Your task to perform on an android device: open a bookmark in the chrome app Image 0: 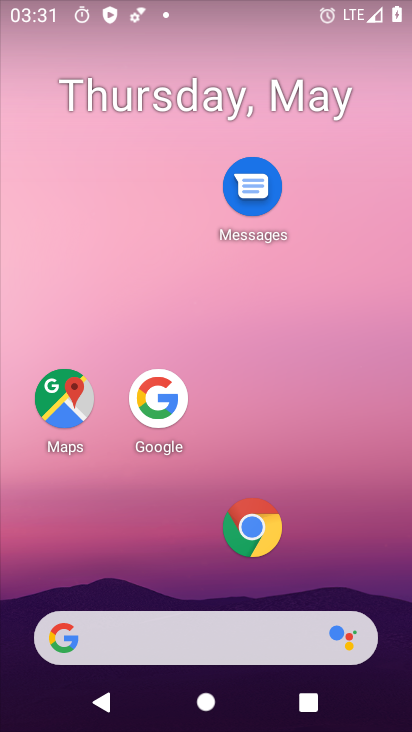
Step 0: drag from (196, 594) to (197, 181)
Your task to perform on an android device: open a bookmark in the chrome app Image 1: 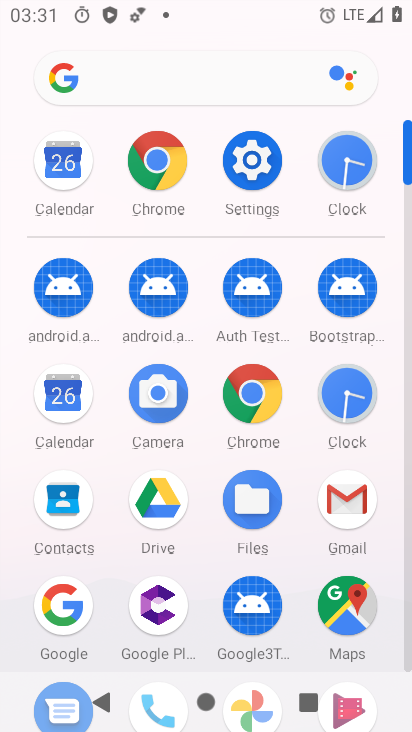
Step 1: click (256, 380)
Your task to perform on an android device: open a bookmark in the chrome app Image 2: 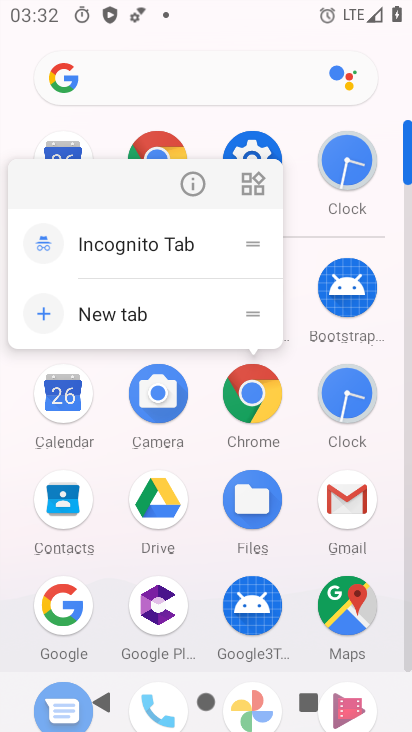
Step 2: click (181, 188)
Your task to perform on an android device: open a bookmark in the chrome app Image 3: 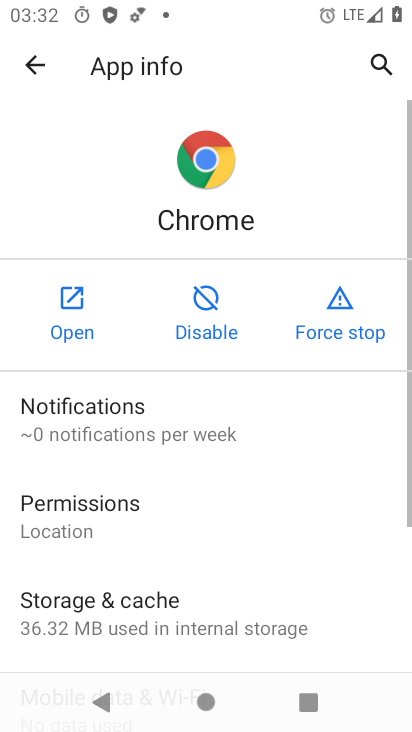
Step 3: click (94, 301)
Your task to perform on an android device: open a bookmark in the chrome app Image 4: 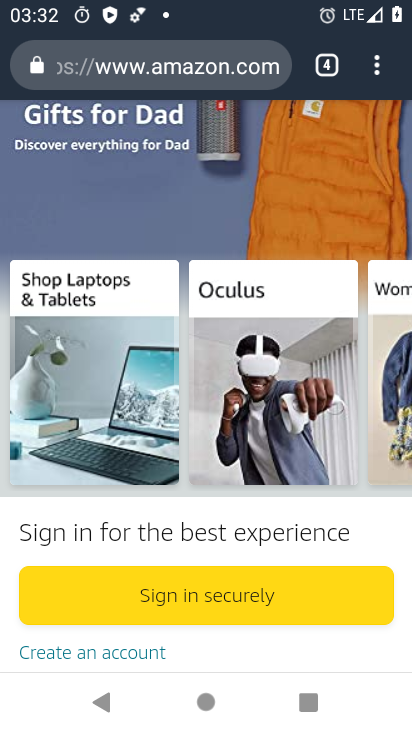
Step 4: click (379, 68)
Your task to perform on an android device: open a bookmark in the chrome app Image 5: 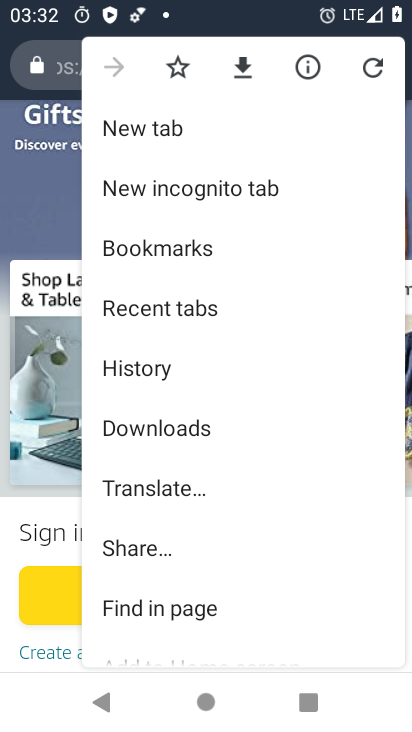
Step 5: click (173, 254)
Your task to perform on an android device: open a bookmark in the chrome app Image 6: 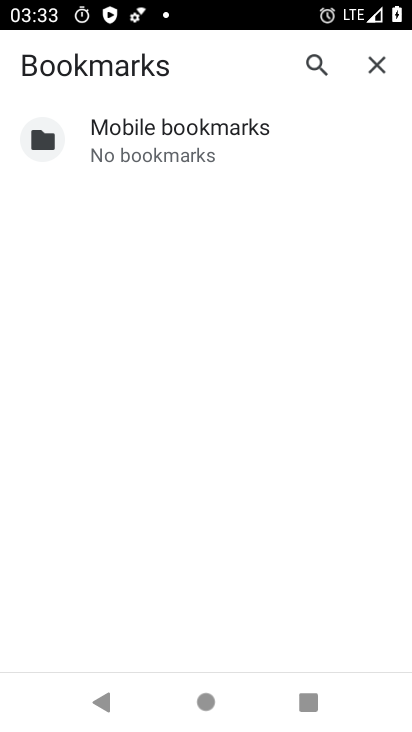
Step 6: click (256, 385)
Your task to perform on an android device: open a bookmark in the chrome app Image 7: 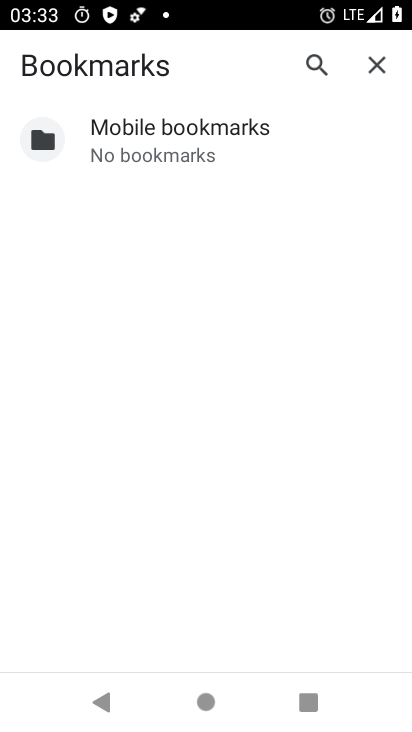
Step 7: task complete